Your task to perform on an android device: What's the weather? Image 0: 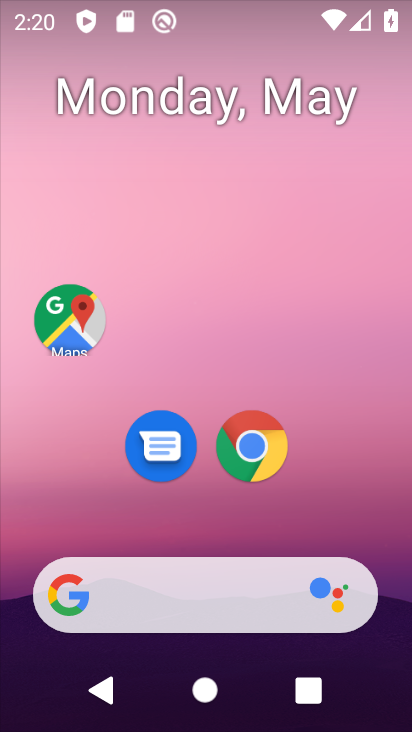
Step 0: drag from (193, 534) to (244, 96)
Your task to perform on an android device: What's the weather? Image 1: 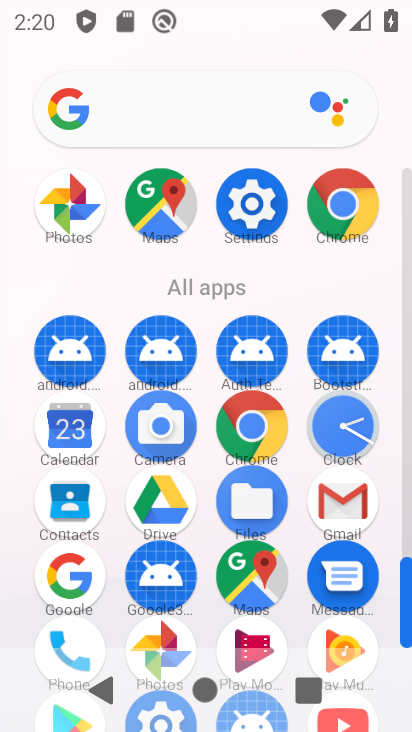
Step 1: click (89, 578)
Your task to perform on an android device: What's the weather? Image 2: 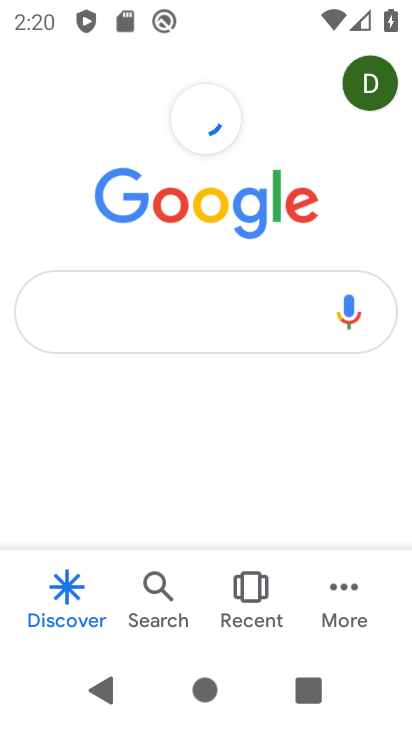
Step 2: click (222, 290)
Your task to perform on an android device: What's the weather? Image 3: 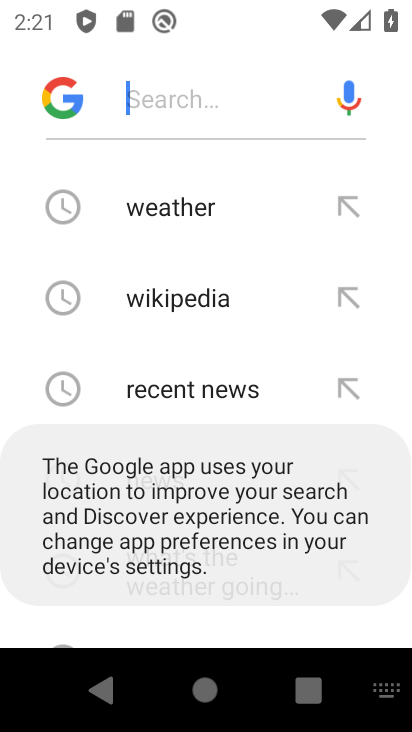
Step 3: click (137, 192)
Your task to perform on an android device: What's the weather? Image 4: 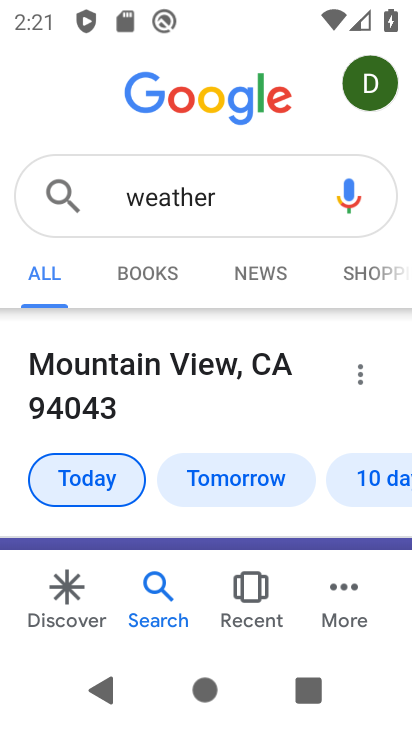
Step 4: task complete